Your task to perform on an android device: open a bookmark in the chrome app Image 0: 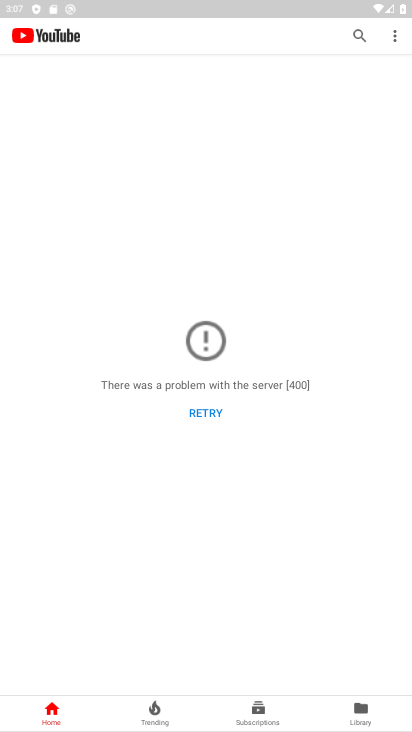
Step 0: press home button
Your task to perform on an android device: open a bookmark in the chrome app Image 1: 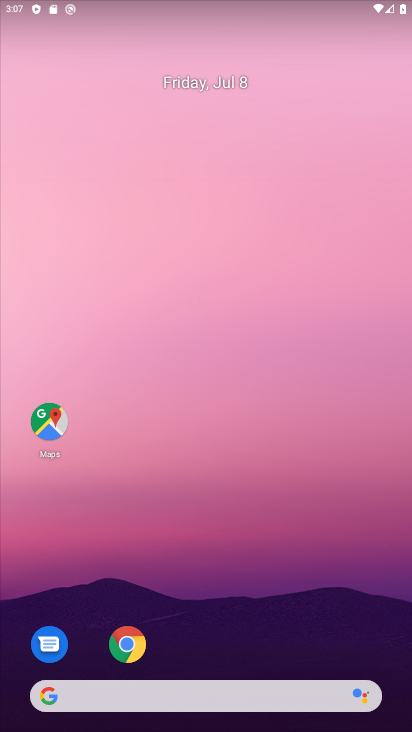
Step 1: click (113, 640)
Your task to perform on an android device: open a bookmark in the chrome app Image 2: 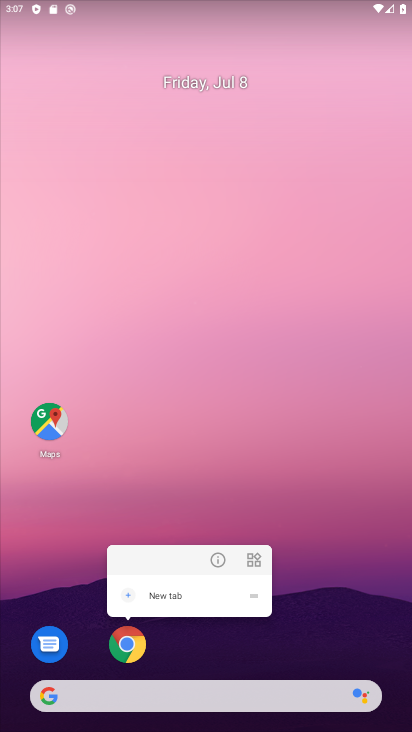
Step 2: click (128, 648)
Your task to perform on an android device: open a bookmark in the chrome app Image 3: 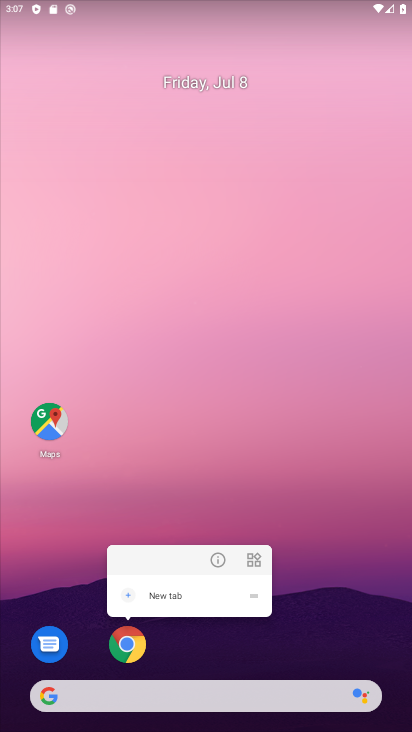
Step 3: click (128, 648)
Your task to perform on an android device: open a bookmark in the chrome app Image 4: 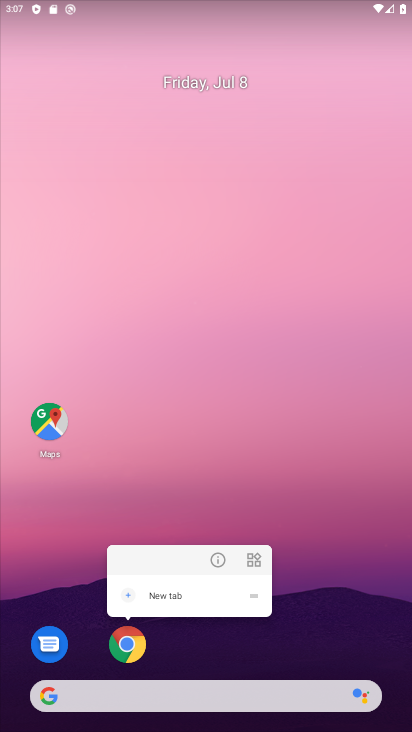
Step 4: click (129, 650)
Your task to perform on an android device: open a bookmark in the chrome app Image 5: 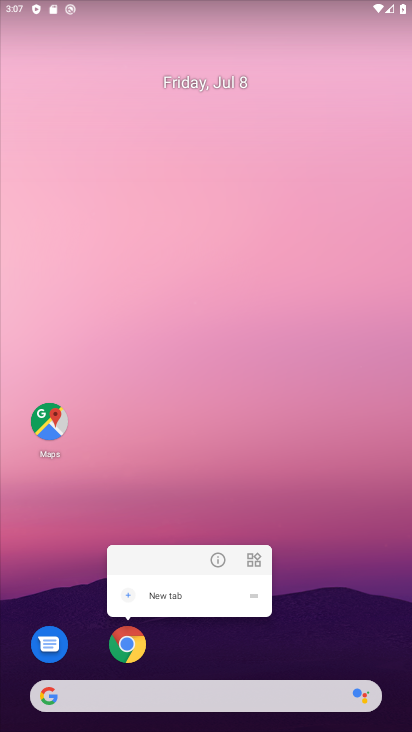
Step 5: click (120, 640)
Your task to perform on an android device: open a bookmark in the chrome app Image 6: 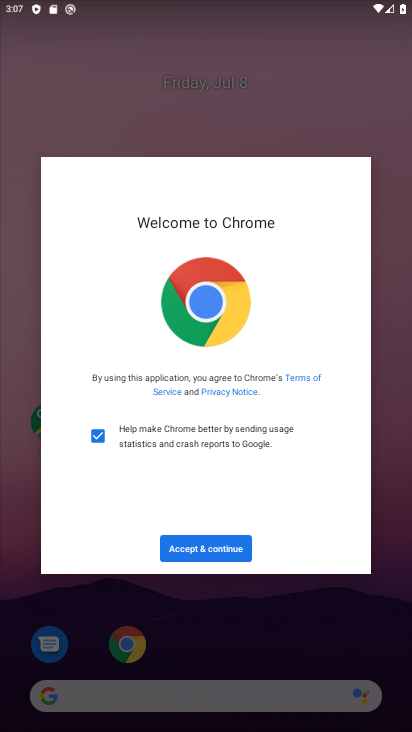
Step 6: click (202, 545)
Your task to perform on an android device: open a bookmark in the chrome app Image 7: 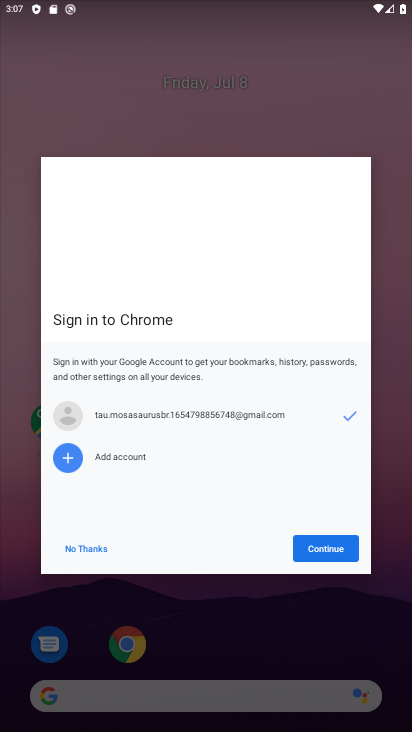
Step 7: click (355, 544)
Your task to perform on an android device: open a bookmark in the chrome app Image 8: 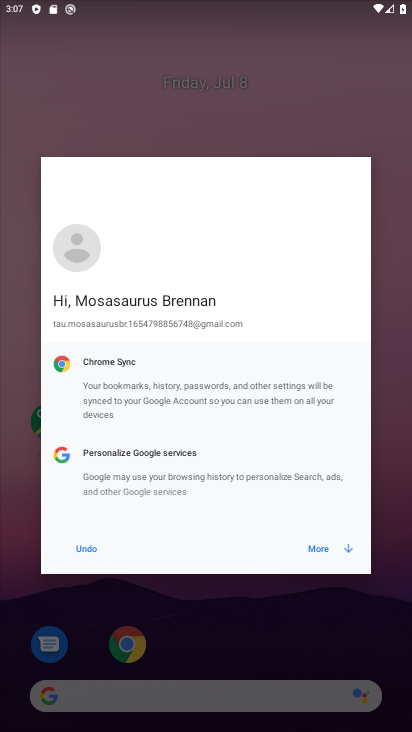
Step 8: click (321, 547)
Your task to perform on an android device: open a bookmark in the chrome app Image 9: 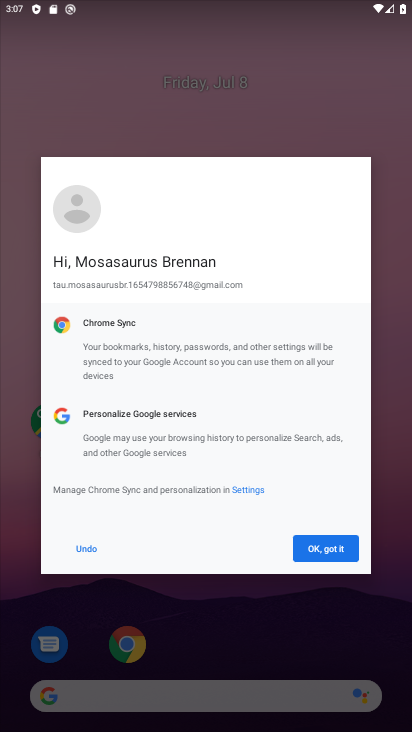
Step 9: click (321, 550)
Your task to perform on an android device: open a bookmark in the chrome app Image 10: 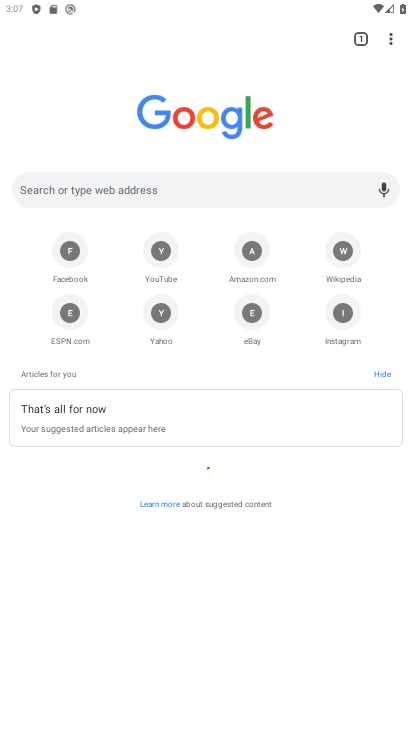
Step 10: click (389, 31)
Your task to perform on an android device: open a bookmark in the chrome app Image 11: 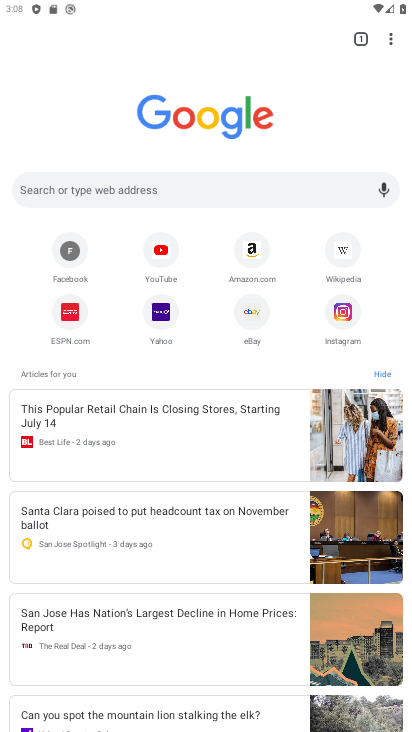
Step 11: click (390, 42)
Your task to perform on an android device: open a bookmark in the chrome app Image 12: 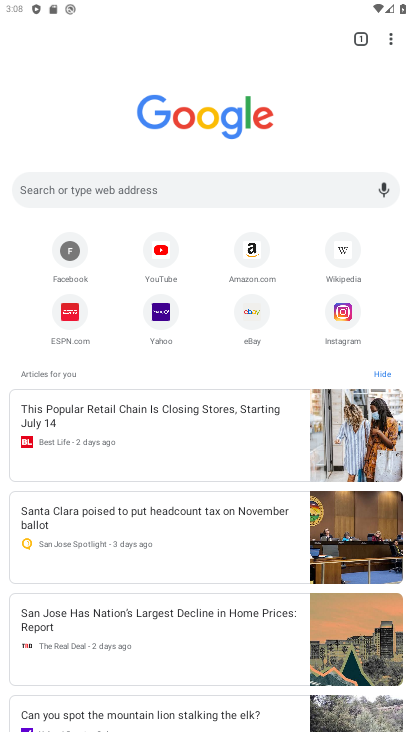
Step 12: click (389, 35)
Your task to perform on an android device: open a bookmark in the chrome app Image 13: 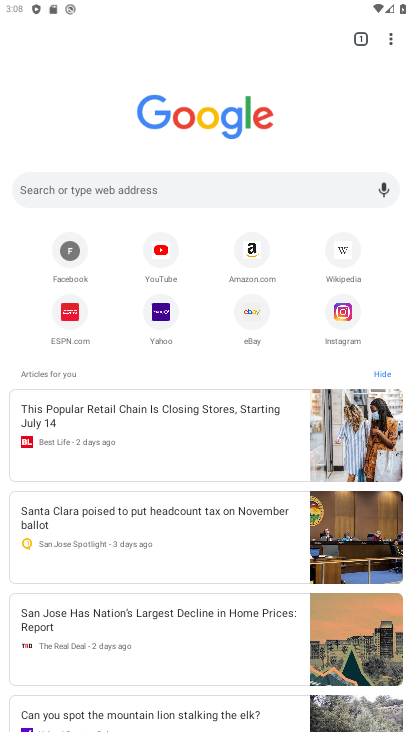
Step 13: task complete